Your task to perform on an android device: Is it going to rain tomorrow? Image 0: 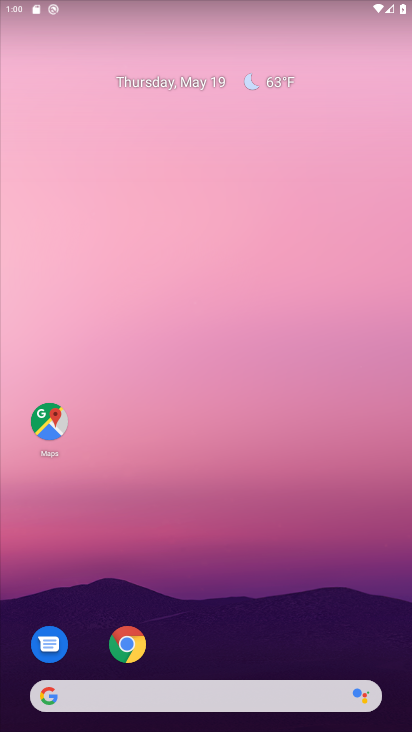
Step 0: click (118, 643)
Your task to perform on an android device: Is it going to rain tomorrow? Image 1: 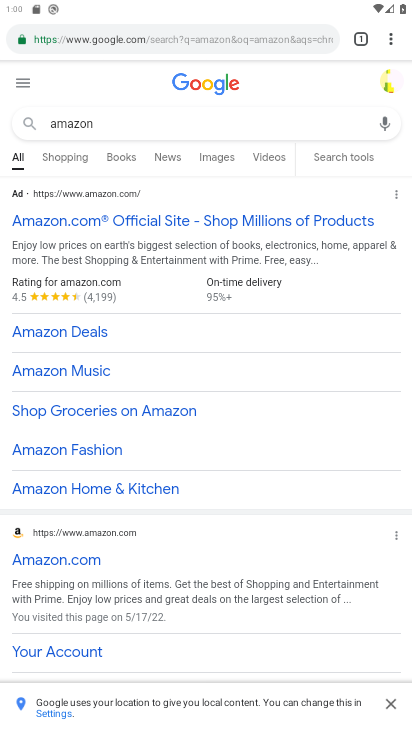
Step 1: click (161, 37)
Your task to perform on an android device: Is it going to rain tomorrow? Image 2: 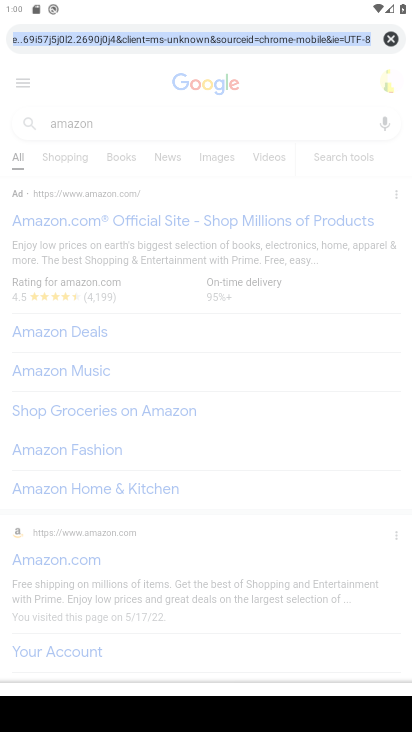
Step 2: type "Is it going to rain tomorrow?"
Your task to perform on an android device: Is it going to rain tomorrow? Image 3: 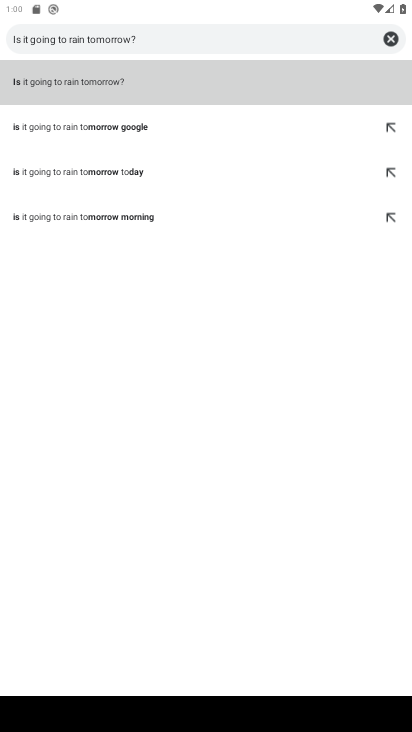
Step 3: click (94, 81)
Your task to perform on an android device: Is it going to rain tomorrow? Image 4: 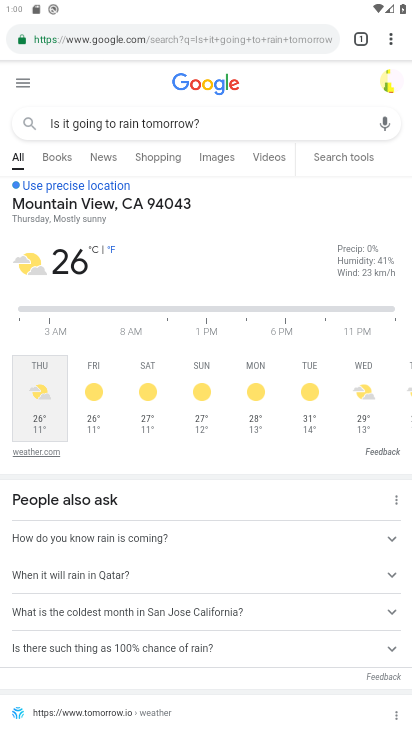
Step 4: task complete